Your task to perform on an android device: Go to internet settings Image 0: 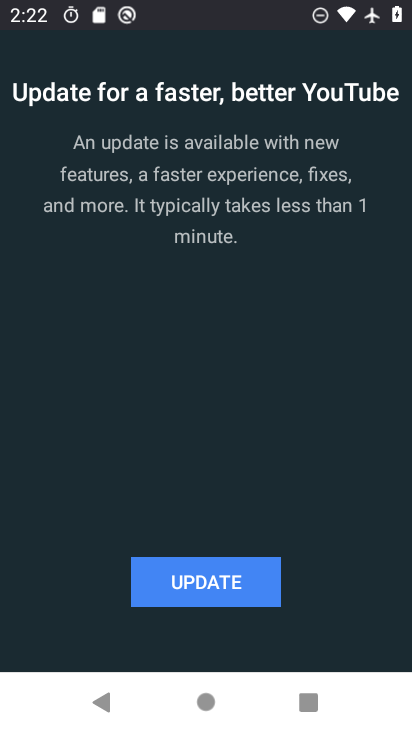
Step 0: press home button
Your task to perform on an android device: Go to internet settings Image 1: 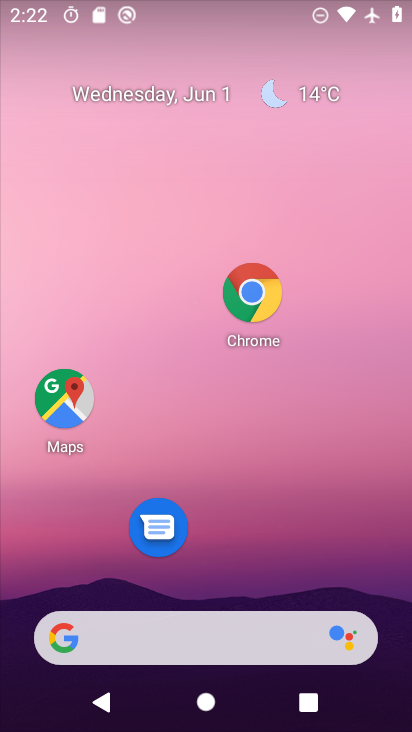
Step 1: drag from (230, 668) to (249, 87)
Your task to perform on an android device: Go to internet settings Image 2: 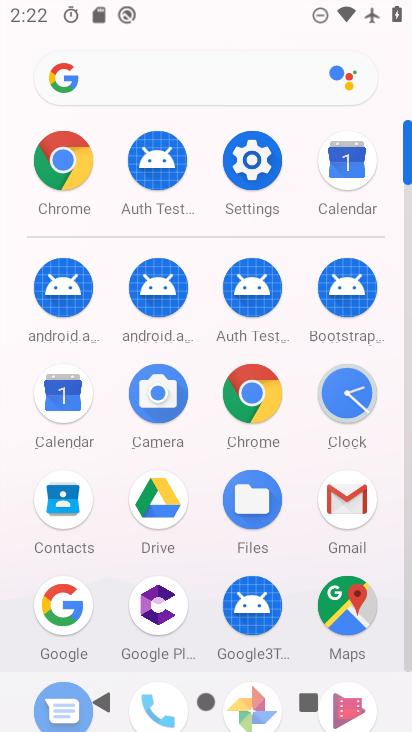
Step 2: click (265, 158)
Your task to perform on an android device: Go to internet settings Image 3: 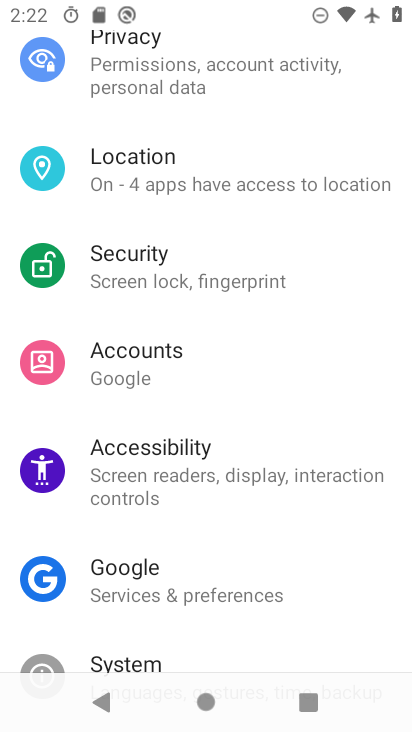
Step 3: drag from (201, 284) to (178, 615)
Your task to perform on an android device: Go to internet settings Image 4: 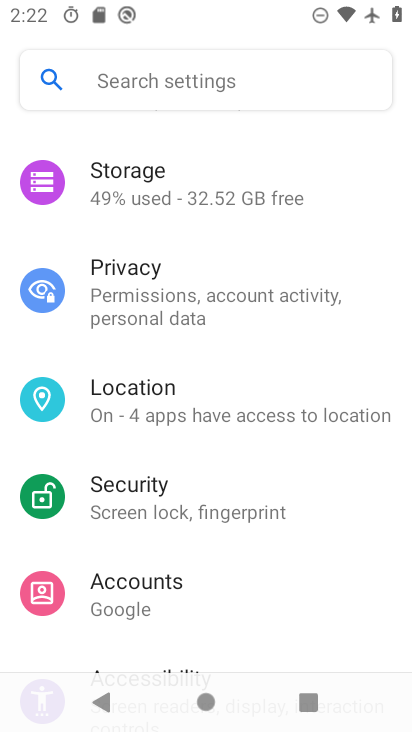
Step 4: drag from (153, 508) to (137, 717)
Your task to perform on an android device: Go to internet settings Image 5: 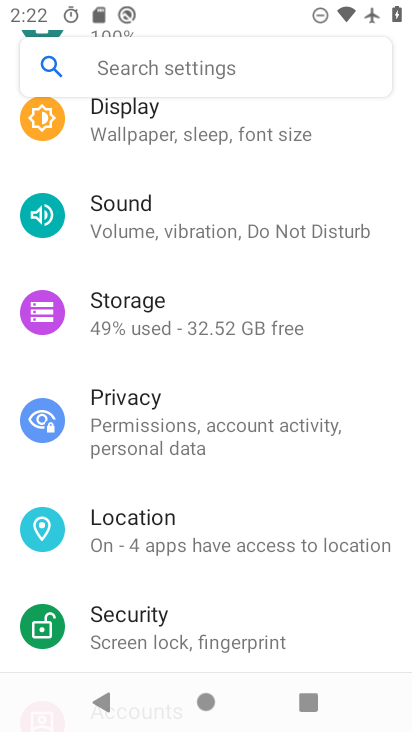
Step 5: drag from (159, 464) to (156, 663)
Your task to perform on an android device: Go to internet settings Image 6: 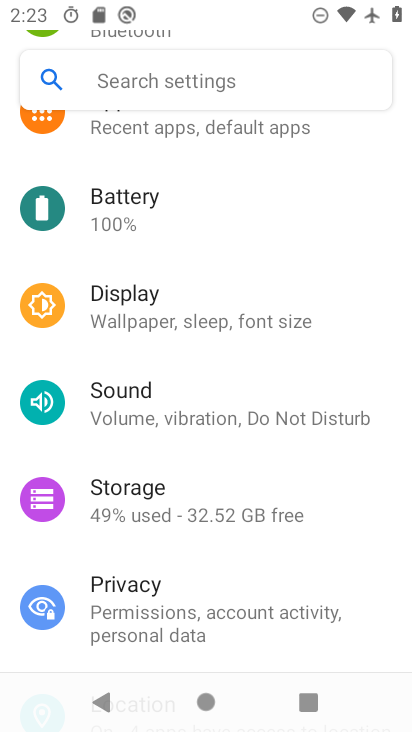
Step 6: drag from (238, 294) to (187, 630)
Your task to perform on an android device: Go to internet settings Image 7: 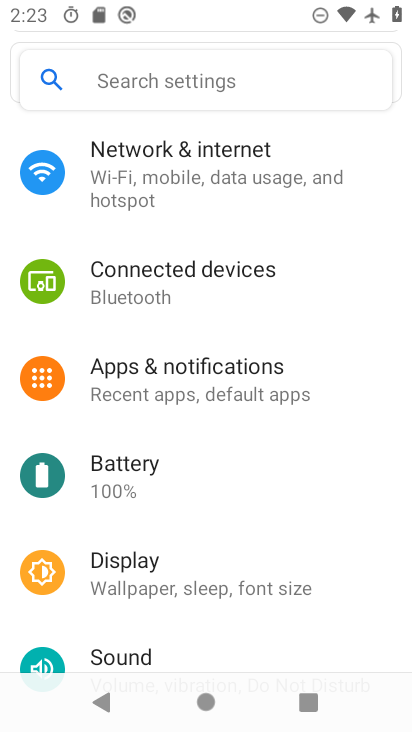
Step 7: drag from (205, 300) to (205, 605)
Your task to perform on an android device: Go to internet settings Image 8: 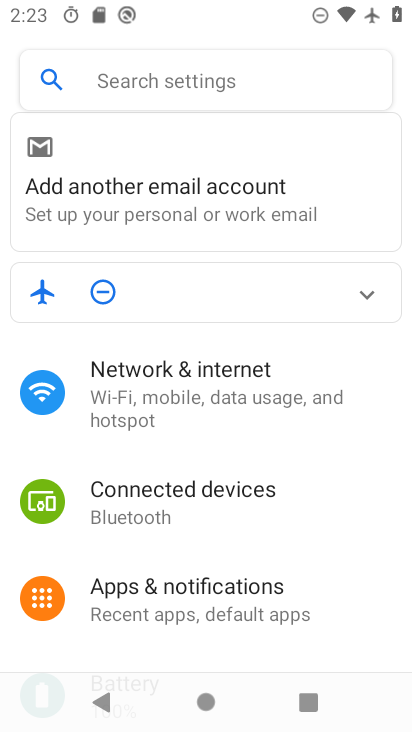
Step 8: click (246, 376)
Your task to perform on an android device: Go to internet settings Image 9: 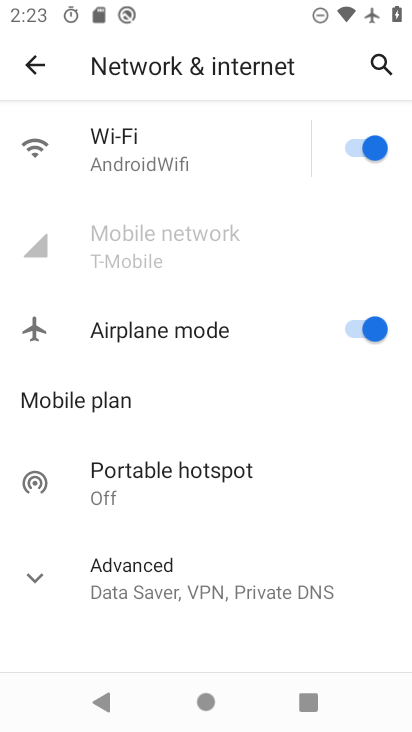
Step 9: task complete